Your task to perform on an android device: Search for vegetarian restaurants on Maps Image 0: 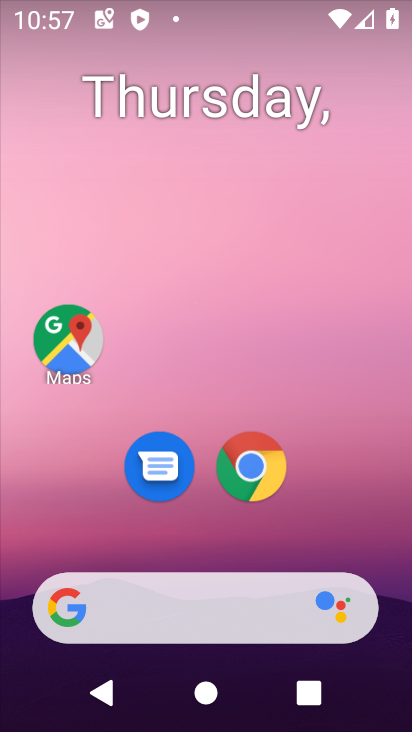
Step 0: click (72, 352)
Your task to perform on an android device: Search for vegetarian restaurants on Maps Image 1: 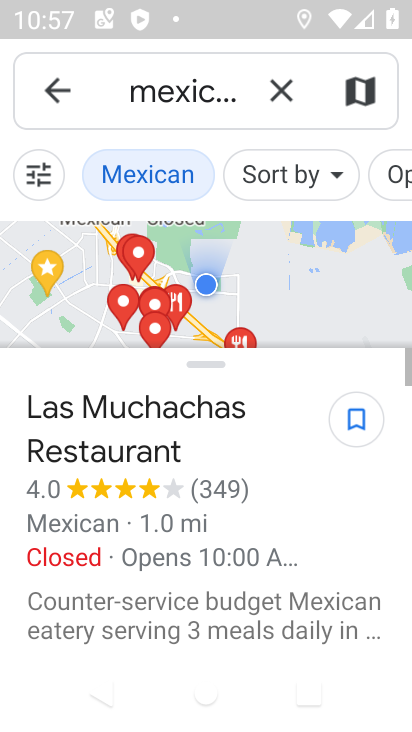
Step 1: click (284, 91)
Your task to perform on an android device: Search for vegetarian restaurants on Maps Image 2: 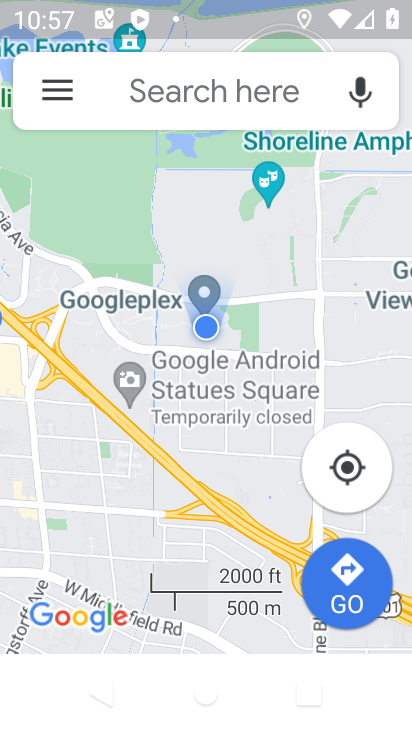
Step 2: click (187, 106)
Your task to perform on an android device: Search for vegetarian restaurants on Maps Image 3: 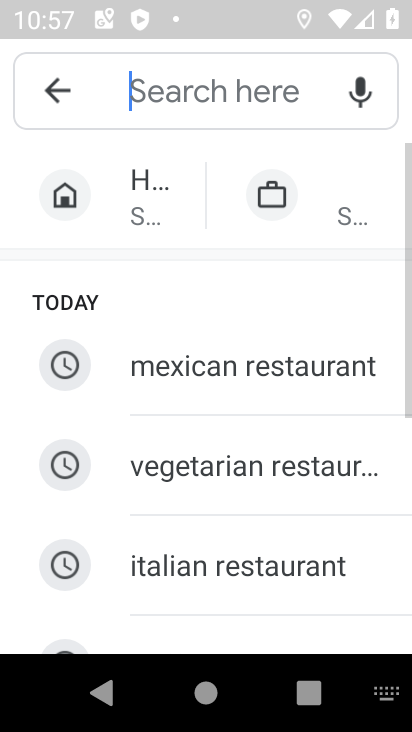
Step 3: click (279, 463)
Your task to perform on an android device: Search for vegetarian restaurants on Maps Image 4: 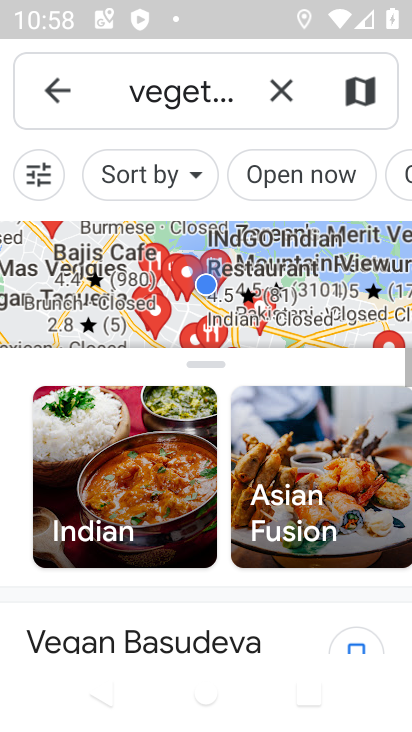
Step 4: task complete